Your task to perform on an android device: change the clock display to analog Image 0: 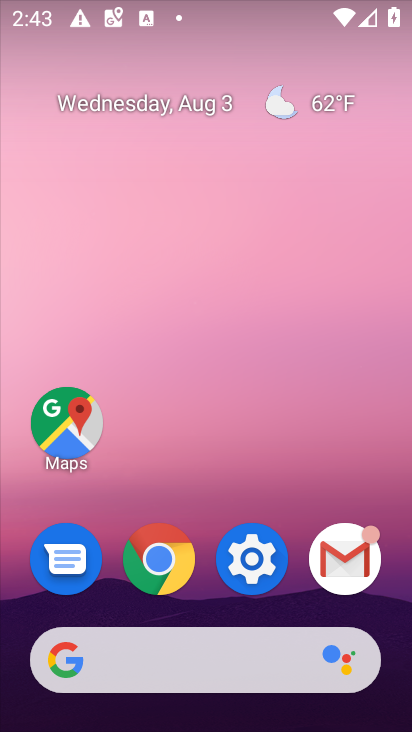
Step 0: press home button
Your task to perform on an android device: change the clock display to analog Image 1: 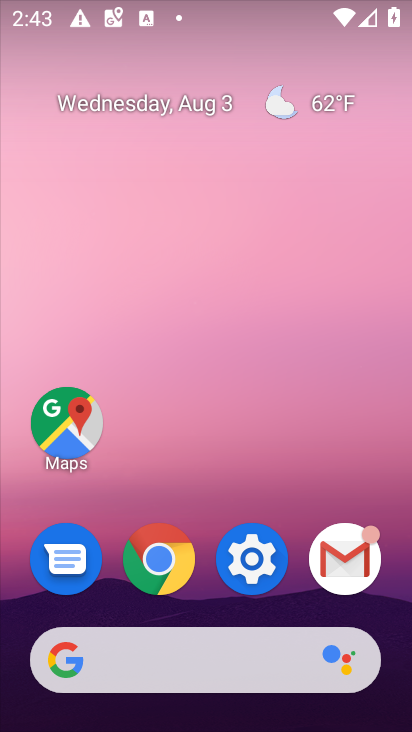
Step 1: drag from (242, 685) to (277, 145)
Your task to perform on an android device: change the clock display to analog Image 2: 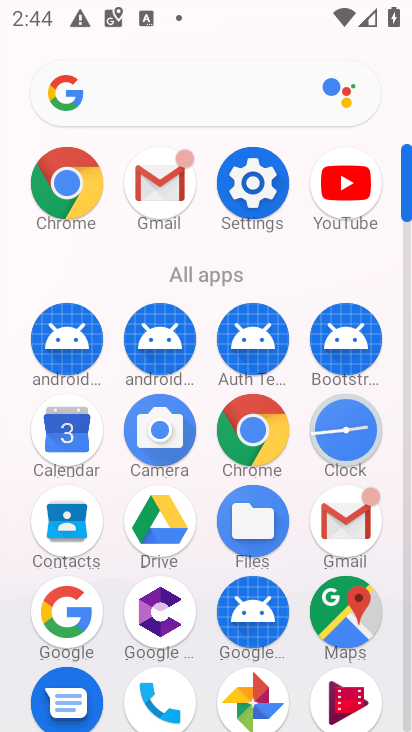
Step 2: click (326, 415)
Your task to perform on an android device: change the clock display to analog Image 3: 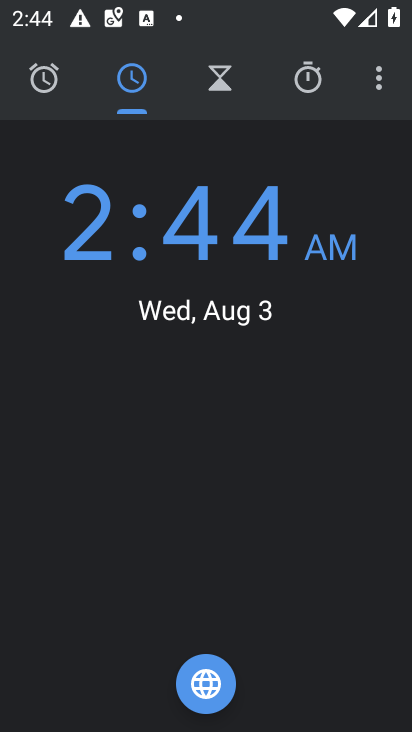
Step 3: click (376, 101)
Your task to perform on an android device: change the clock display to analog Image 4: 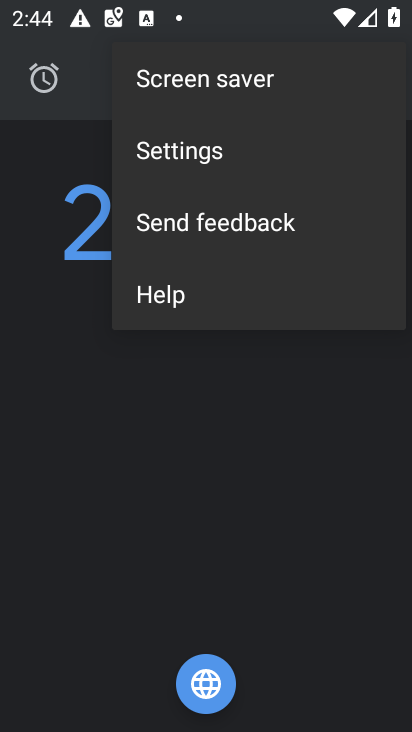
Step 4: click (217, 165)
Your task to perform on an android device: change the clock display to analog Image 5: 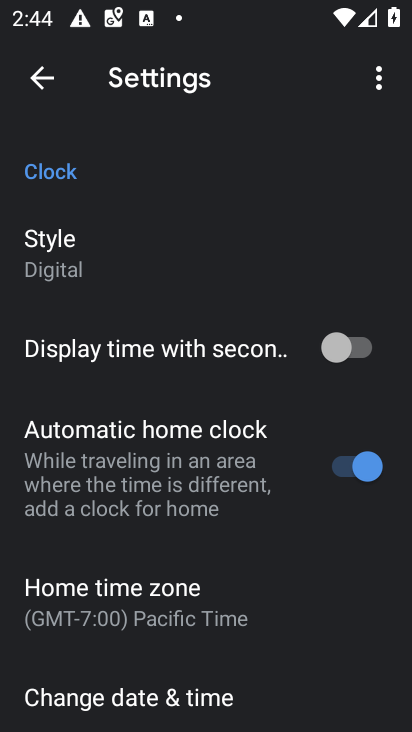
Step 5: click (87, 252)
Your task to perform on an android device: change the clock display to analog Image 6: 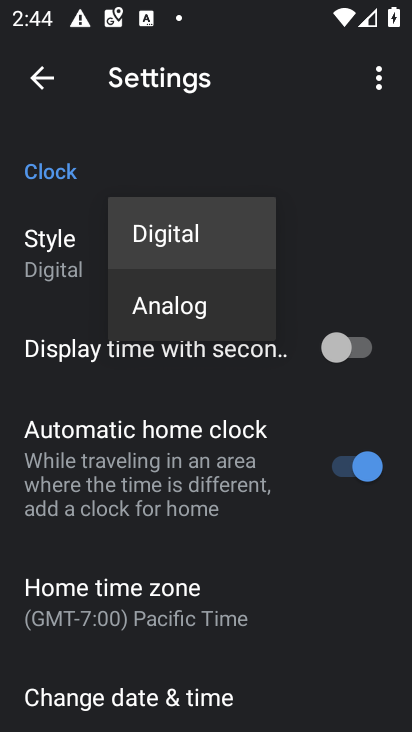
Step 6: click (158, 309)
Your task to perform on an android device: change the clock display to analog Image 7: 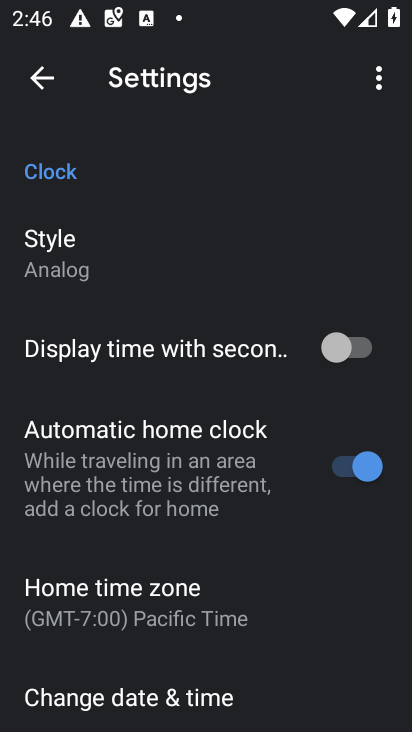
Step 7: task complete